Your task to perform on an android device: Search for pizza restaurants on Maps Image 0: 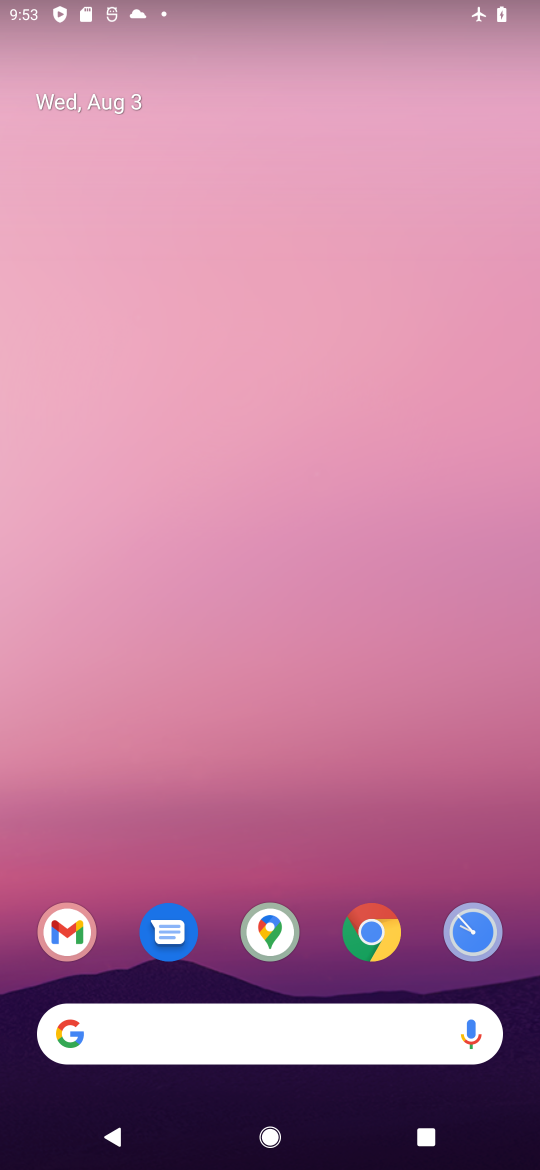
Step 0: drag from (417, 856) to (323, 53)
Your task to perform on an android device: Search for pizza restaurants on Maps Image 1: 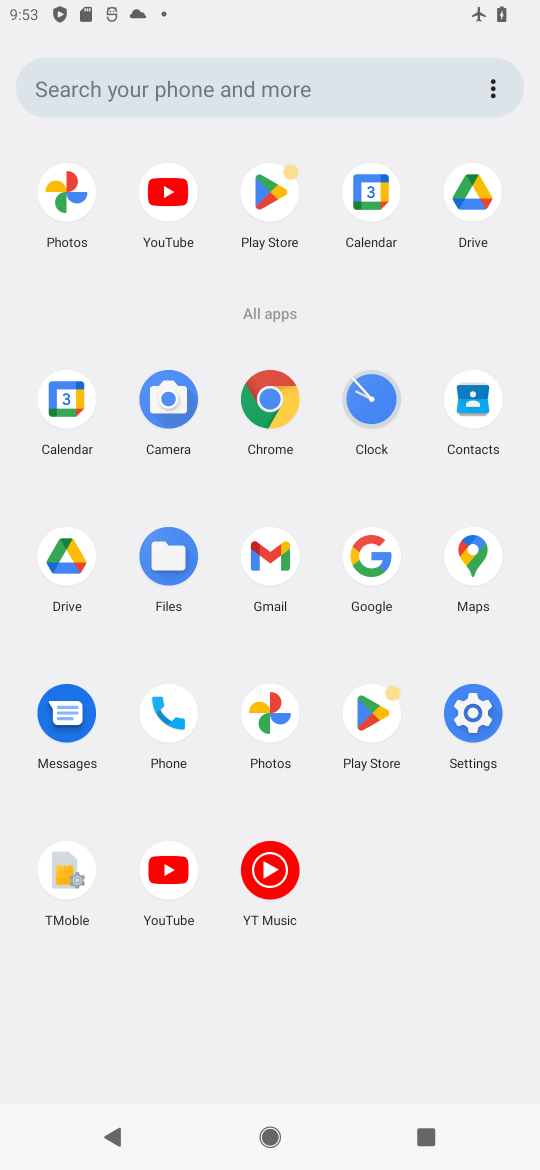
Step 1: click (471, 556)
Your task to perform on an android device: Search for pizza restaurants on Maps Image 2: 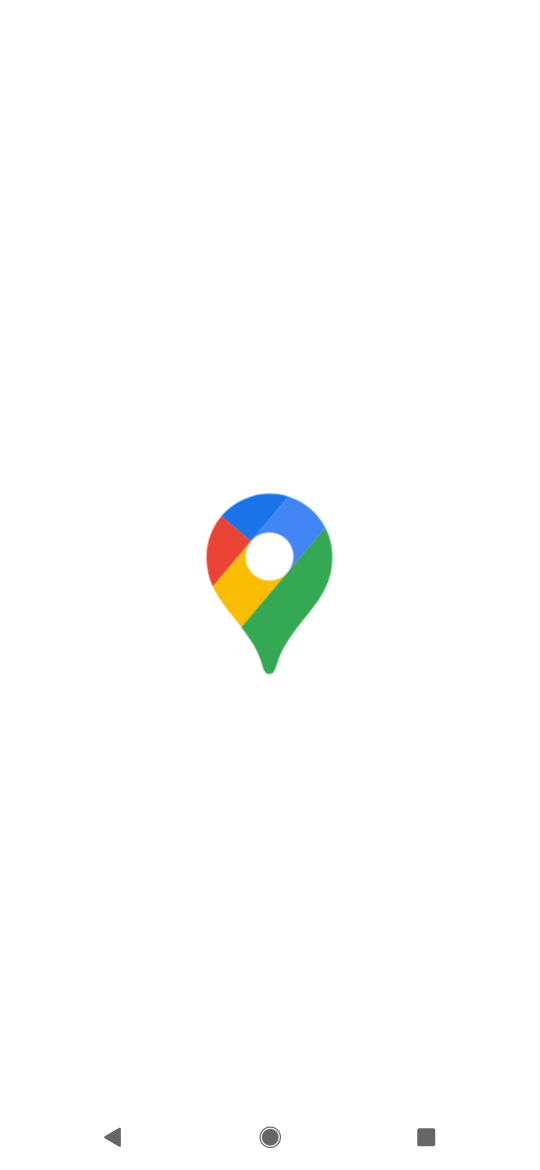
Step 2: task complete